Your task to perform on an android device: Go to Amazon Image 0: 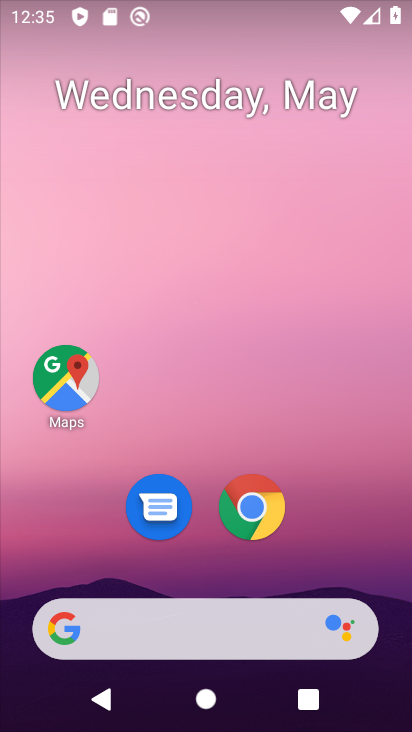
Step 0: click (254, 508)
Your task to perform on an android device: Go to Amazon Image 1: 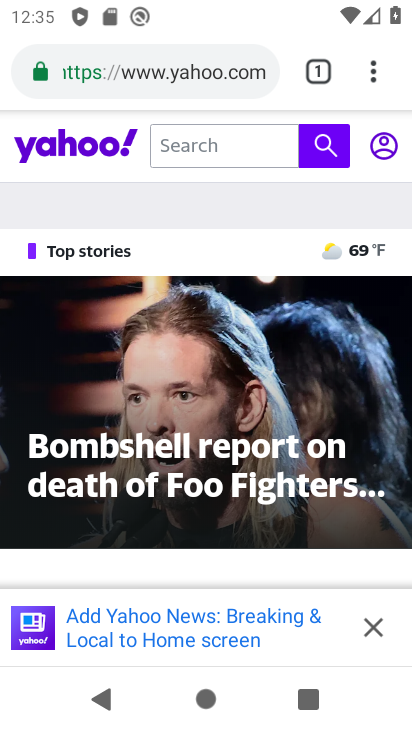
Step 1: click (201, 64)
Your task to perform on an android device: Go to Amazon Image 2: 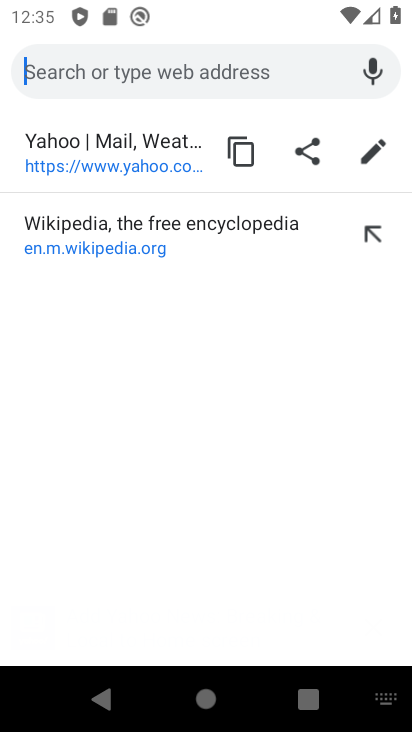
Step 2: type "amazon"
Your task to perform on an android device: Go to Amazon Image 3: 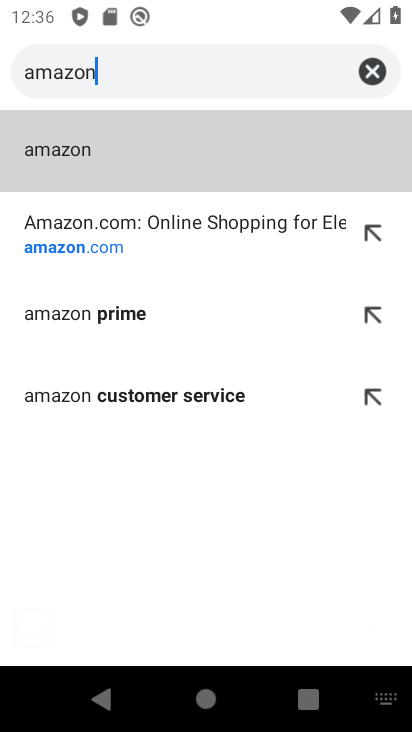
Step 3: click (82, 146)
Your task to perform on an android device: Go to Amazon Image 4: 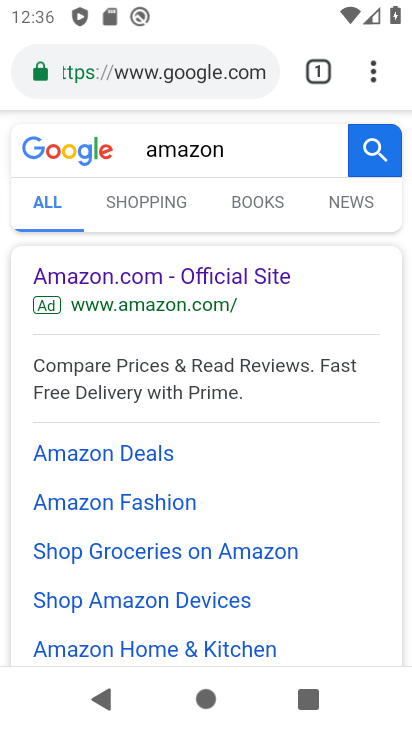
Step 4: click (105, 279)
Your task to perform on an android device: Go to Amazon Image 5: 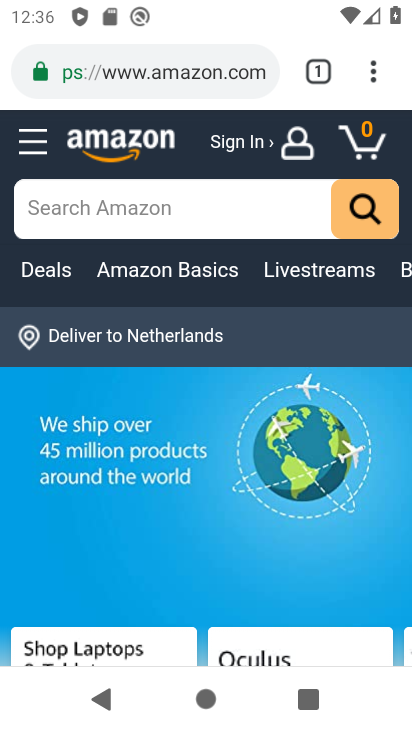
Step 5: task complete